Your task to perform on an android device: turn on showing notifications on the lock screen Image 0: 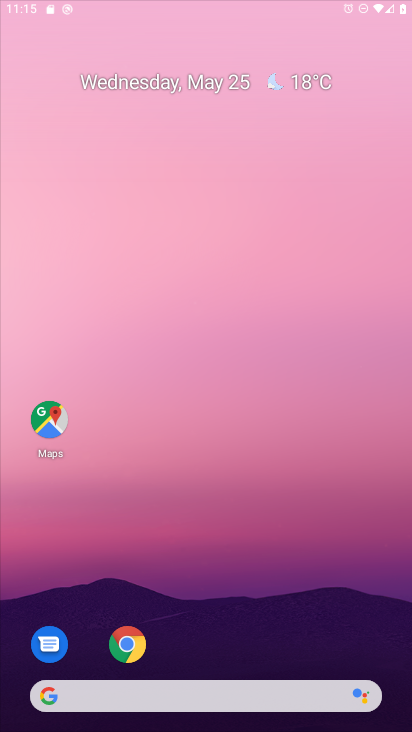
Step 0: press home button
Your task to perform on an android device: turn on showing notifications on the lock screen Image 1: 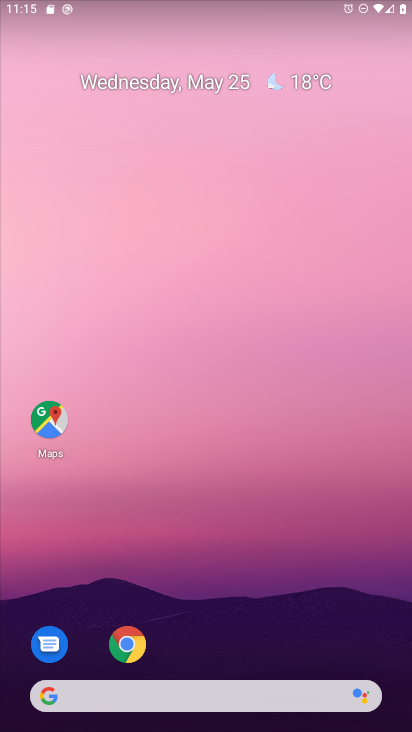
Step 1: drag from (224, 660) to (242, 27)
Your task to perform on an android device: turn on showing notifications on the lock screen Image 2: 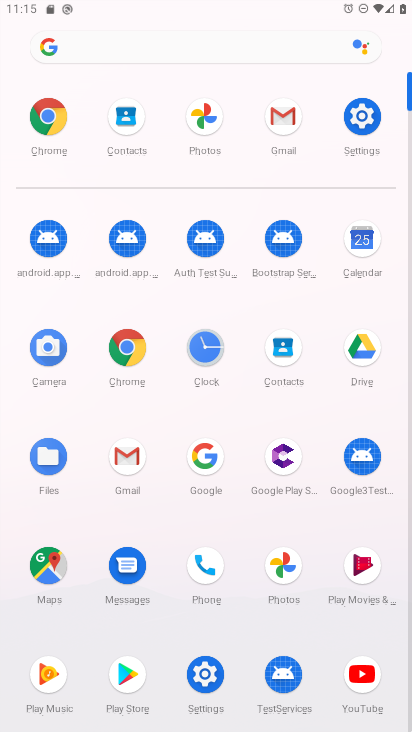
Step 2: click (362, 112)
Your task to perform on an android device: turn on showing notifications on the lock screen Image 3: 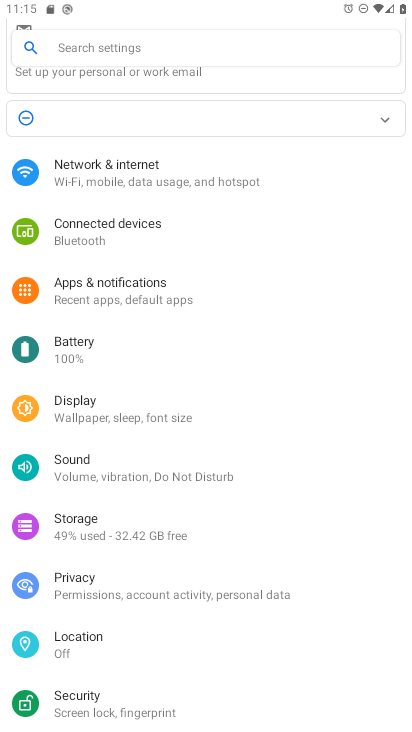
Step 3: click (176, 280)
Your task to perform on an android device: turn on showing notifications on the lock screen Image 4: 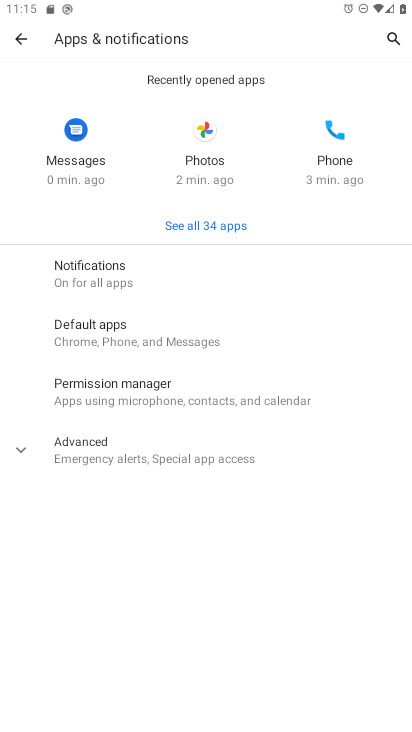
Step 4: click (127, 270)
Your task to perform on an android device: turn on showing notifications on the lock screen Image 5: 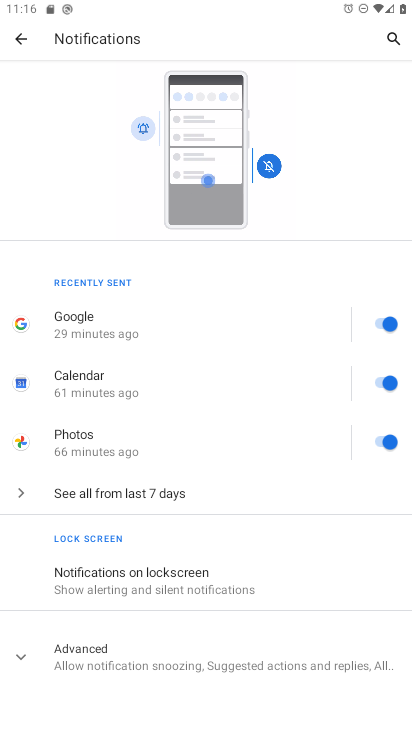
Step 5: click (228, 582)
Your task to perform on an android device: turn on showing notifications on the lock screen Image 6: 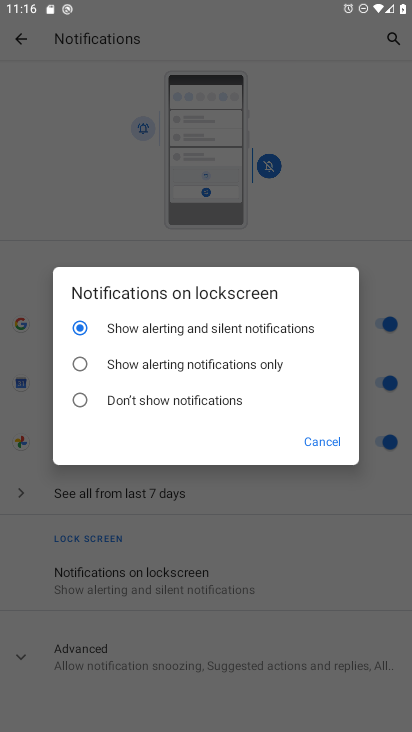
Step 6: click (82, 365)
Your task to perform on an android device: turn on showing notifications on the lock screen Image 7: 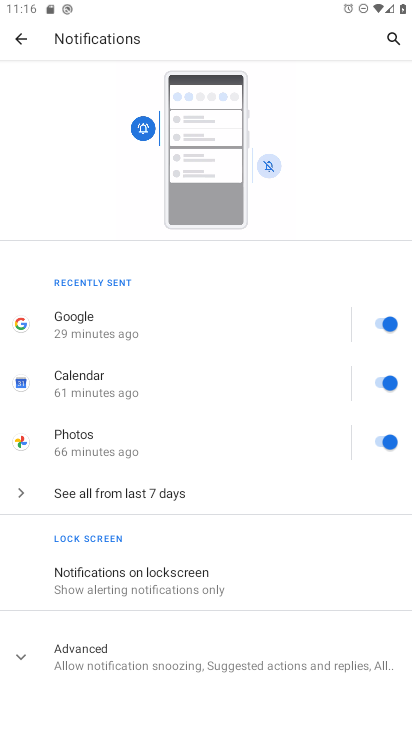
Step 7: task complete